Your task to perform on an android device: turn off data saver in the chrome app Image 0: 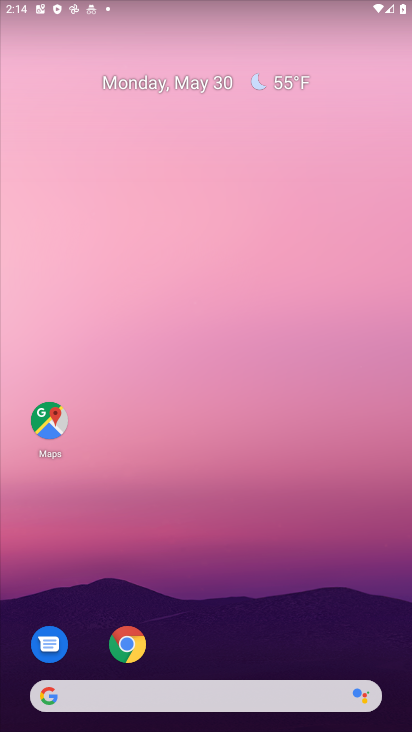
Step 0: drag from (317, 652) to (332, 247)
Your task to perform on an android device: turn off data saver in the chrome app Image 1: 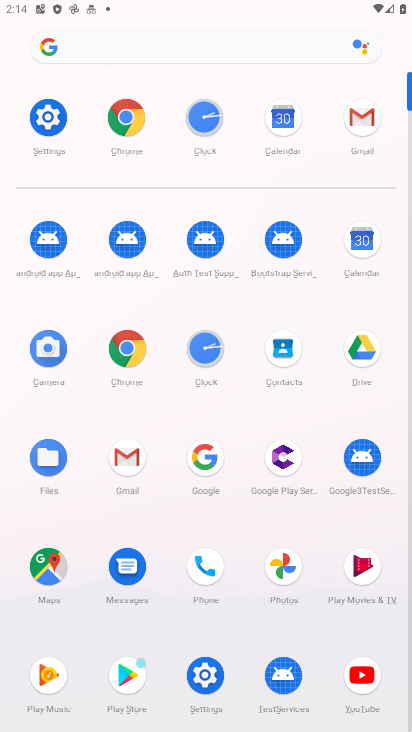
Step 1: click (126, 139)
Your task to perform on an android device: turn off data saver in the chrome app Image 2: 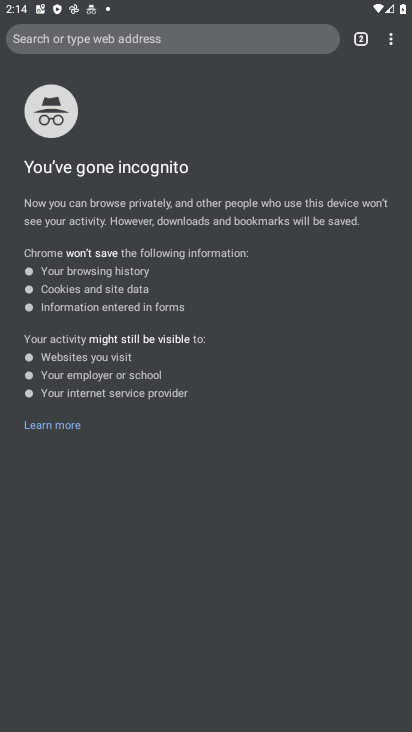
Step 2: task complete